Your task to perform on an android device: Open Youtube and go to the subscriptions tab Image 0: 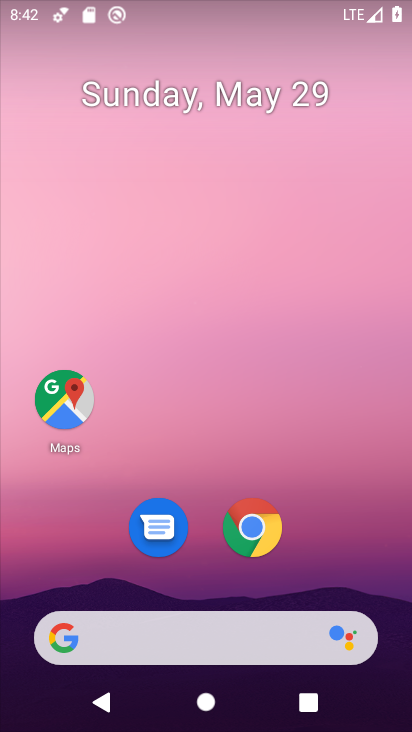
Step 0: press home button
Your task to perform on an android device: Open Youtube and go to the subscriptions tab Image 1: 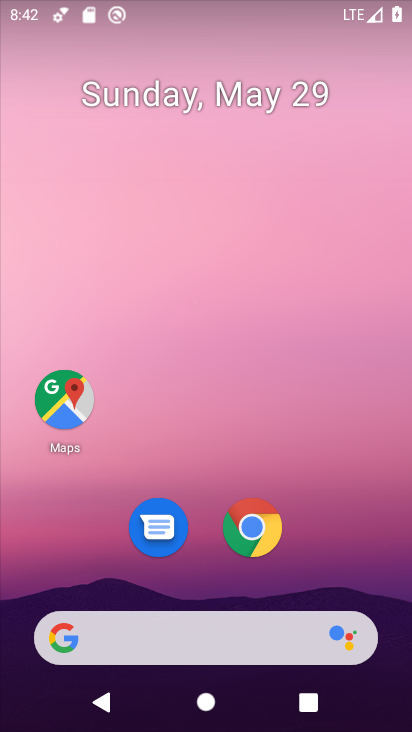
Step 1: drag from (208, 589) to (209, 91)
Your task to perform on an android device: Open Youtube and go to the subscriptions tab Image 2: 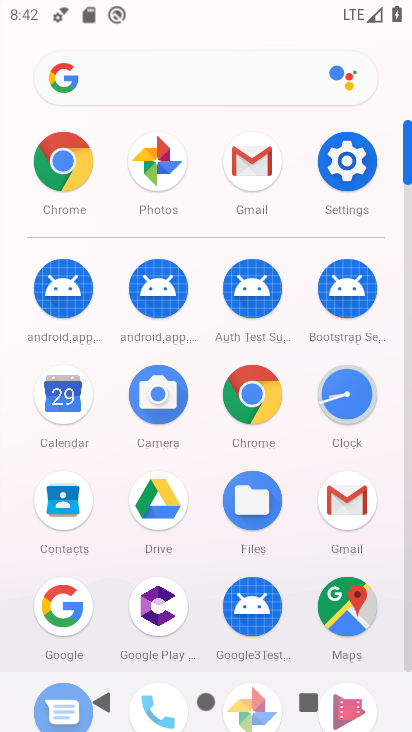
Step 2: drag from (209, 634) to (203, 580)
Your task to perform on an android device: Open Youtube and go to the subscriptions tab Image 3: 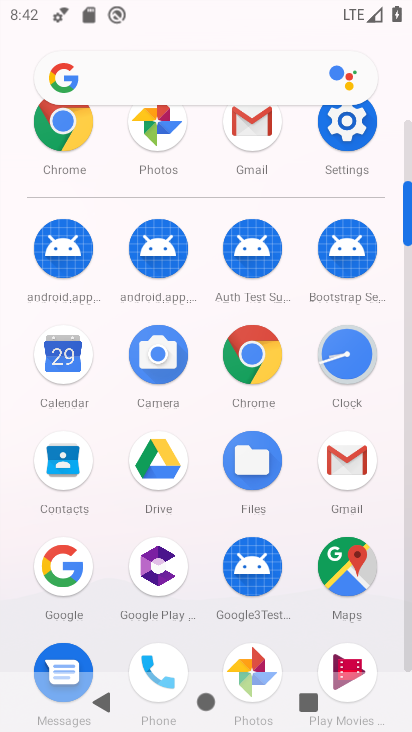
Step 3: drag from (203, 228) to (199, 163)
Your task to perform on an android device: Open Youtube and go to the subscriptions tab Image 4: 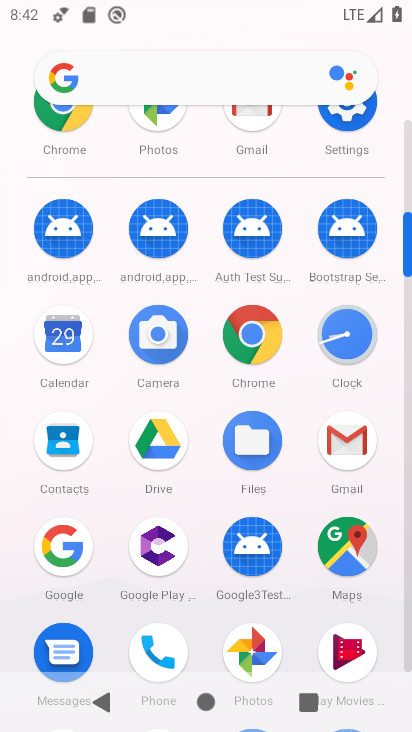
Step 4: drag from (205, 627) to (175, 133)
Your task to perform on an android device: Open Youtube and go to the subscriptions tab Image 5: 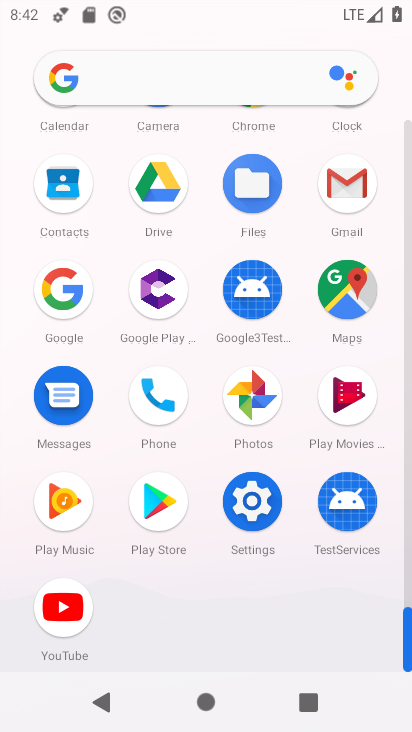
Step 5: click (60, 597)
Your task to perform on an android device: Open Youtube and go to the subscriptions tab Image 6: 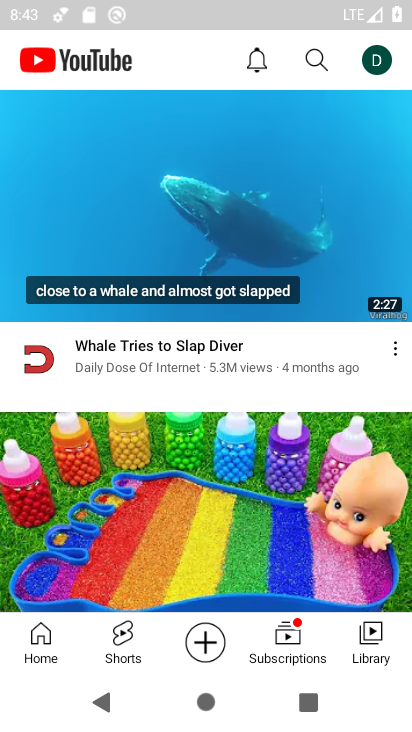
Step 6: click (286, 633)
Your task to perform on an android device: Open Youtube and go to the subscriptions tab Image 7: 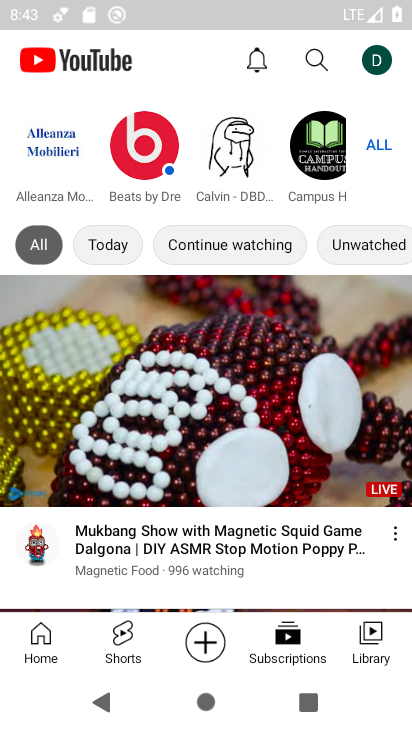
Step 7: task complete